Your task to perform on an android device: Look up the best rated desk lamps on IKEA Image 0: 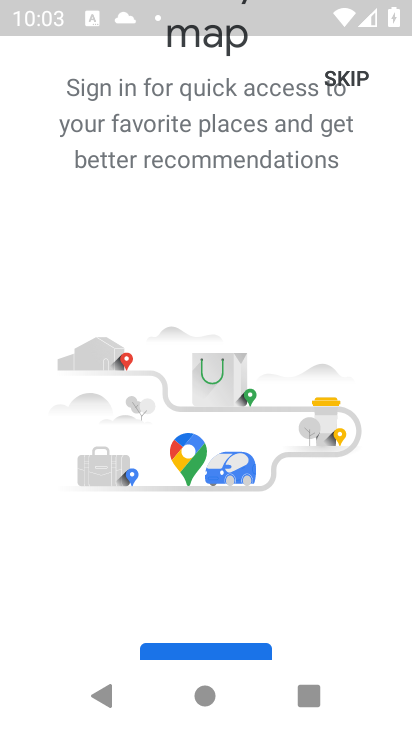
Step 0: press home button
Your task to perform on an android device: Look up the best rated desk lamps on IKEA Image 1: 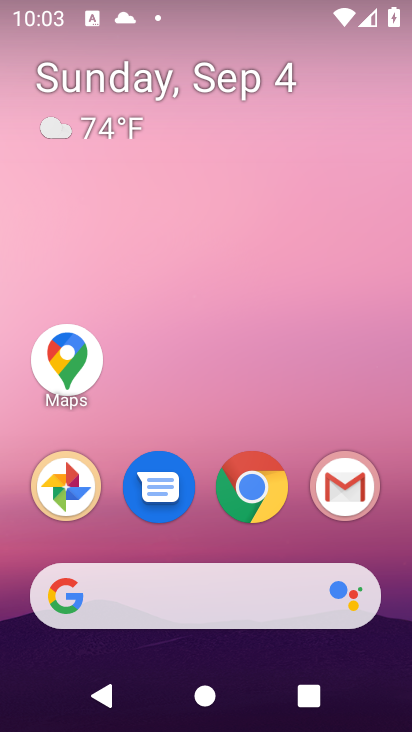
Step 1: click (222, 608)
Your task to perform on an android device: Look up the best rated desk lamps on IKEA Image 2: 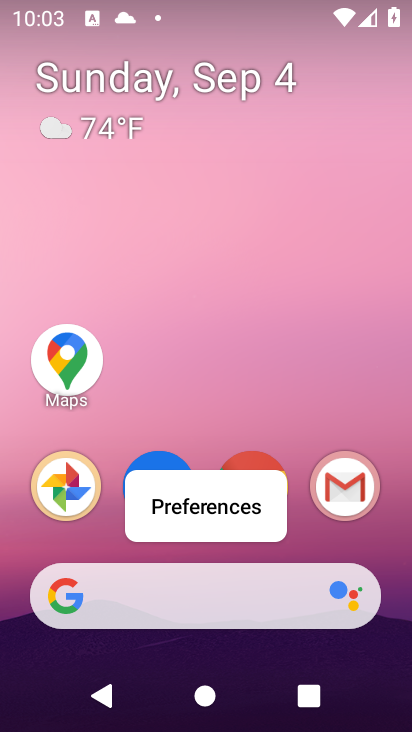
Step 2: click (204, 596)
Your task to perform on an android device: Look up the best rated desk lamps on IKEA Image 3: 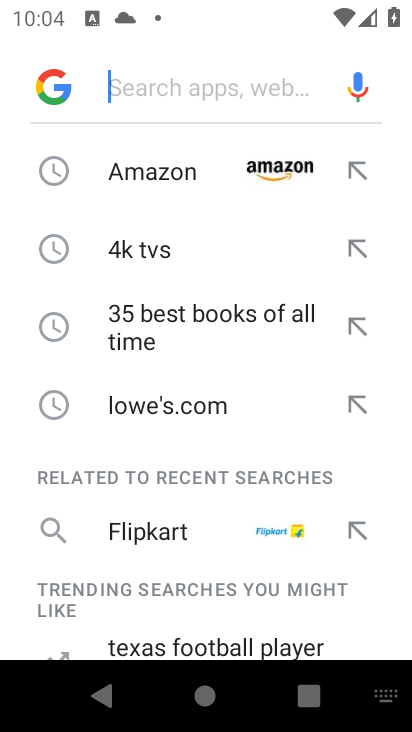
Step 3: type "ikea"
Your task to perform on an android device: Look up the best rated desk lamps on IKEA Image 4: 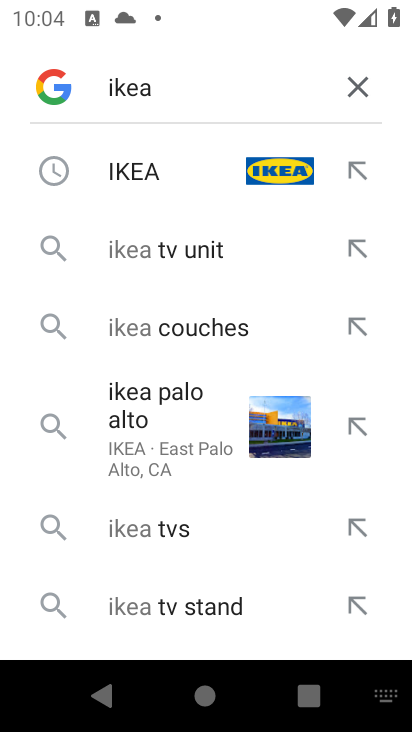
Step 4: click (236, 162)
Your task to perform on an android device: Look up the best rated desk lamps on IKEA Image 5: 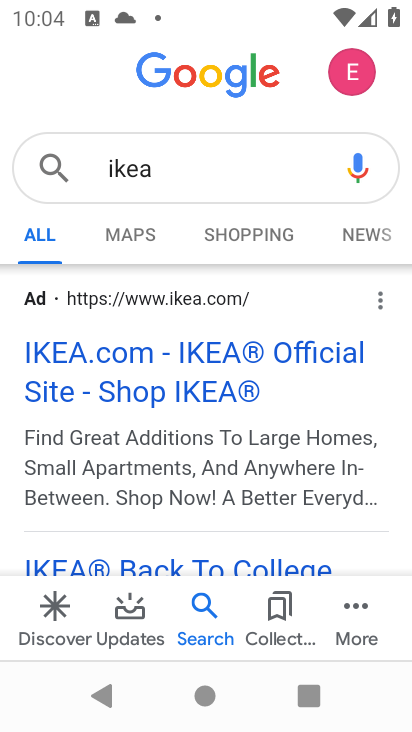
Step 5: click (121, 345)
Your task to perform on an android device: Look up the best rated desk lamps on IKEA Image 6: 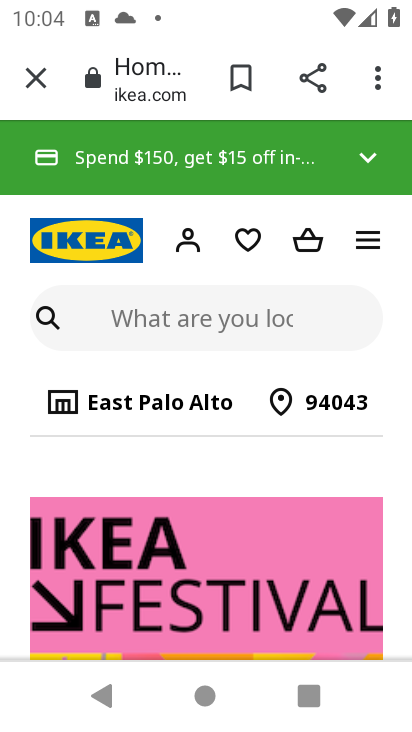
Step 6: click (234, 338)
Your task to perform on an android device: Look up the best rated desk lamps on IKEA Image 7: 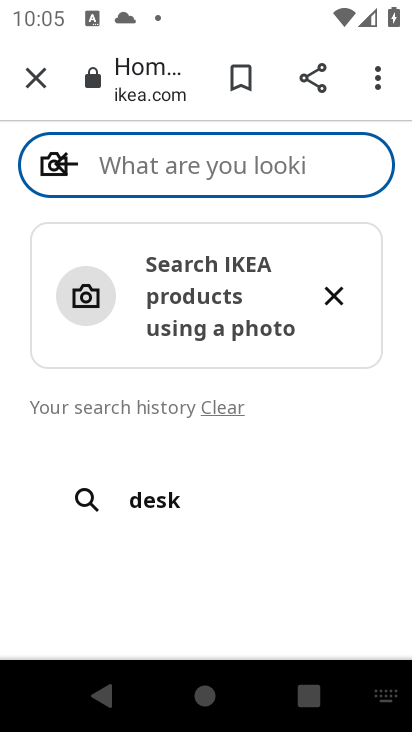
Step 7: type "desk lamps"
Your task to perform on an android device: Look up the best rated desk lamps on IKEA Image 8: 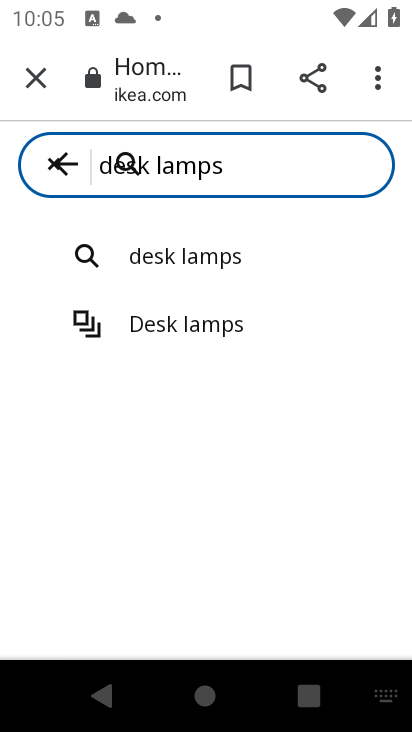
Step 8: click (195, 247)
Your task to perform on an android device: Look up the best rated desk lamps on IKEA Image 9: 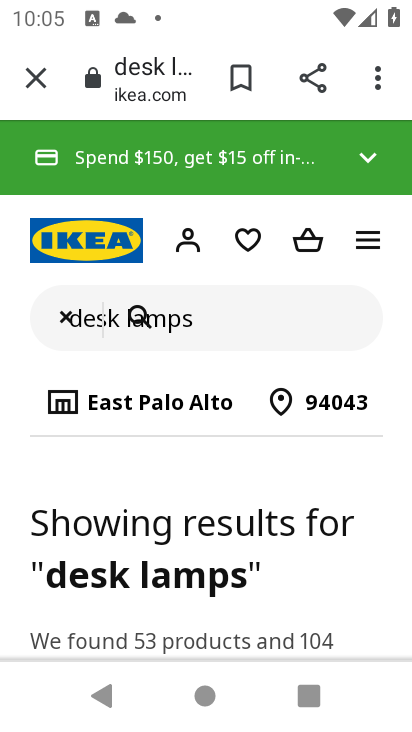
Step 9: task complete